Your task to perform on an android device: Open the calendar and show me this week's events? Image 0: 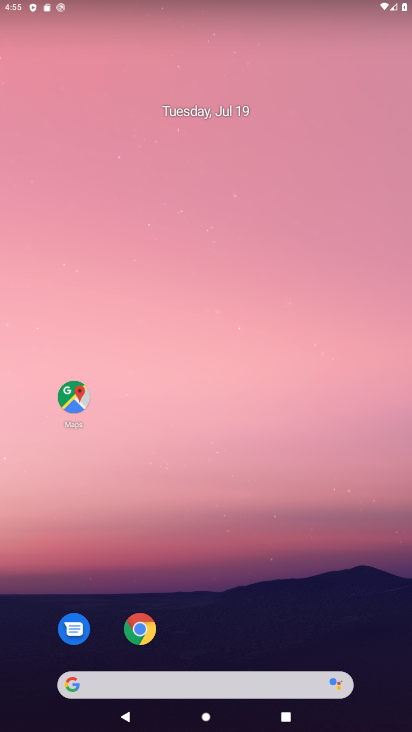
Step 0: drag from (249, 645) to (292, 25)
Your task to perform on an android device: Open the calendar and show me this week's events? Image 1: 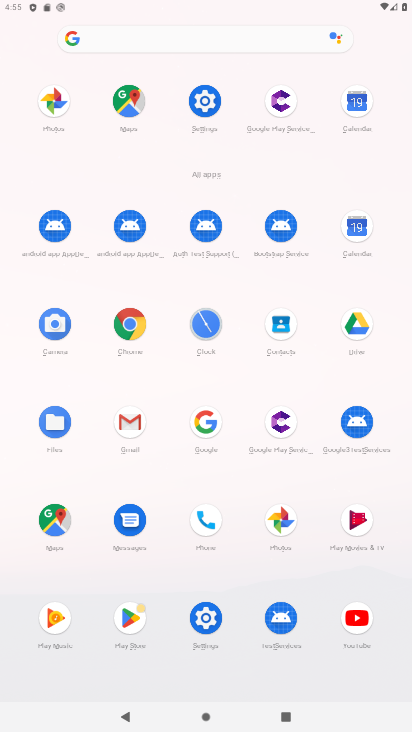
Step 1: click (357, 238)
Your task to perform on an android device: Open the calendar and show me this week's events? Image 2: 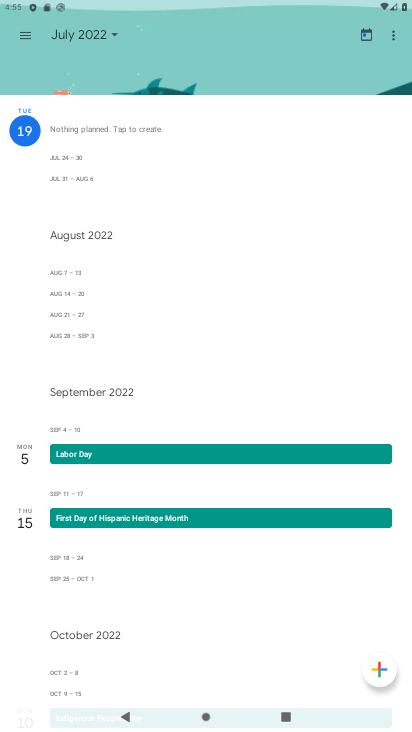
Step 2: click (26, 33)
Your task to perform on an android device: Open the calendar and show me this week's events? Image 3: 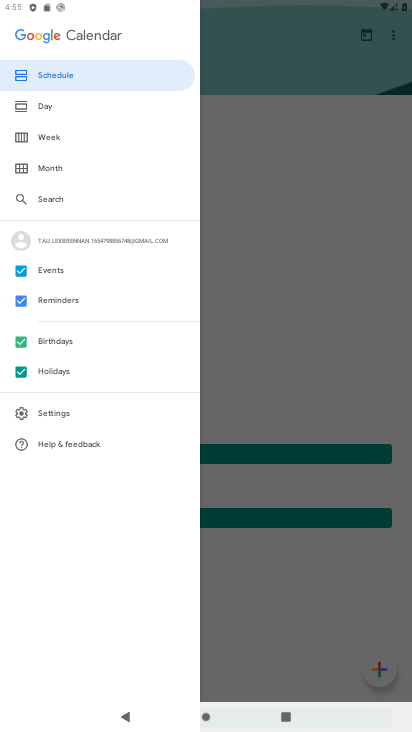
Step 3: click (61, 138)
Your task to perform on an android device: Open the calendar and show me this week's events? Image 4: 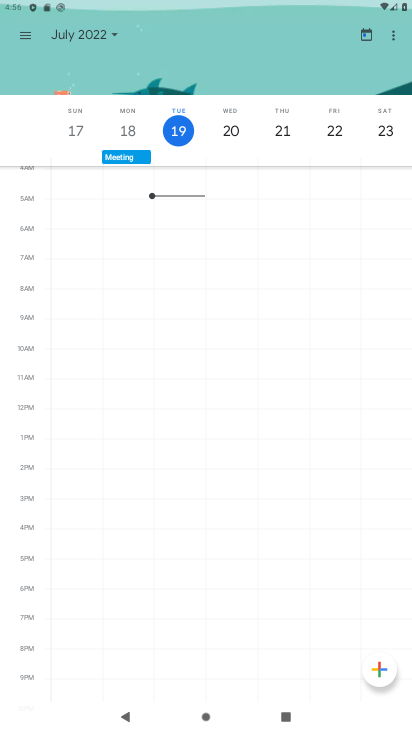
Step 4: task complete